Your task to perform on an android device: move an email to a new category in the gmail app Image 0: 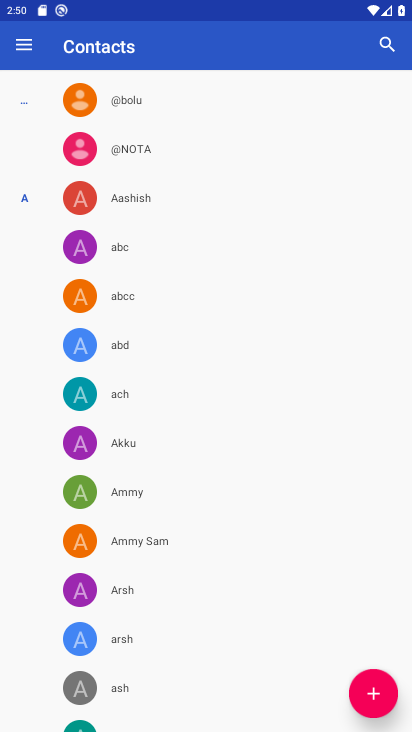
Step 0: press home button
Your task to perform on an android device: move an email to a new category in the gmail app Image 1: 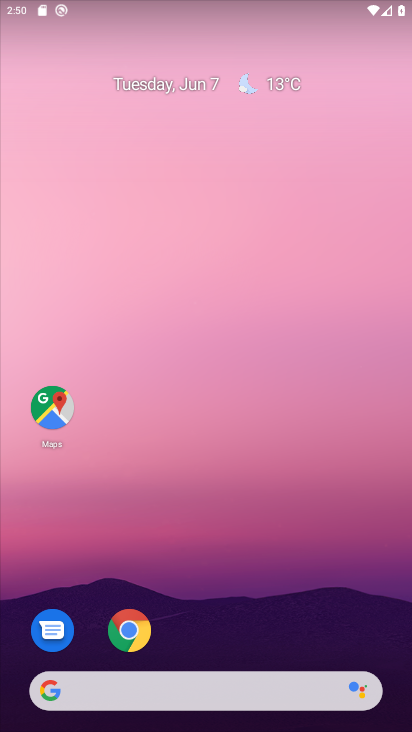
Step 1: drag from (225, 568) to (294, 150)
Your task to perform on an android device: move an email to a new category in the gmail app Image 2: 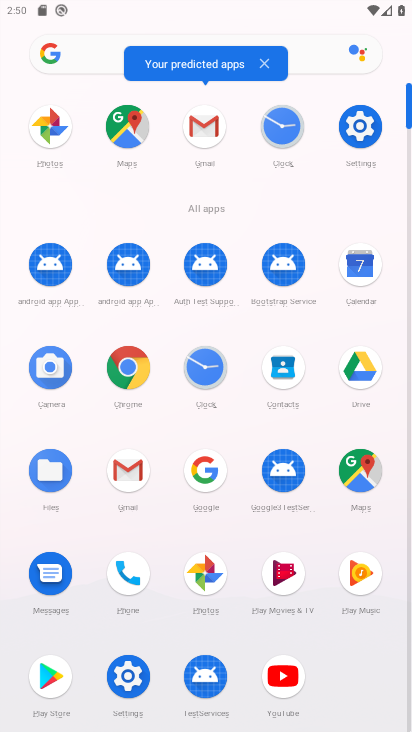
Step 2: click (114, 472)
Your task to perform on an android device: move an email to a new category in the gmail app Image 3: 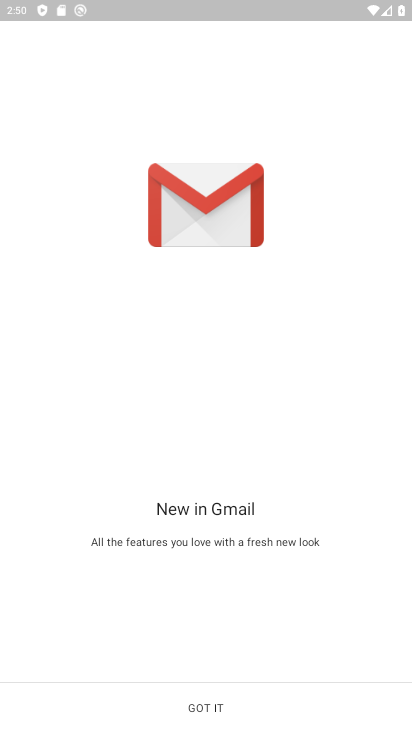
Step 3: click (208, 693)
Your task to perform on an android device: move an email to a new category in the gmail app Image 4: 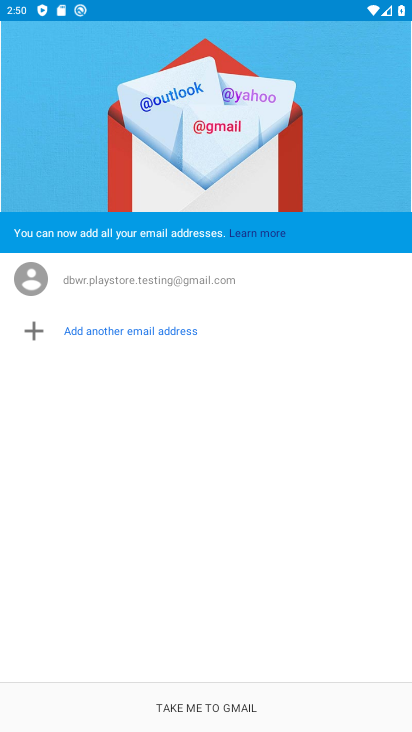
Step 4: click (218, 693)
Your task to perform on an android device: move an email to a new category in the gmail app Image 5: 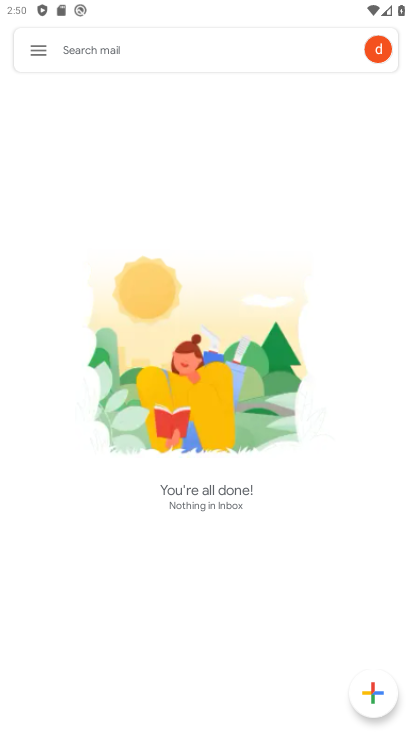
Step 5: click (43, 51)
Your task to perform on an android device: move an email to a new category in the gmail app Image 6: 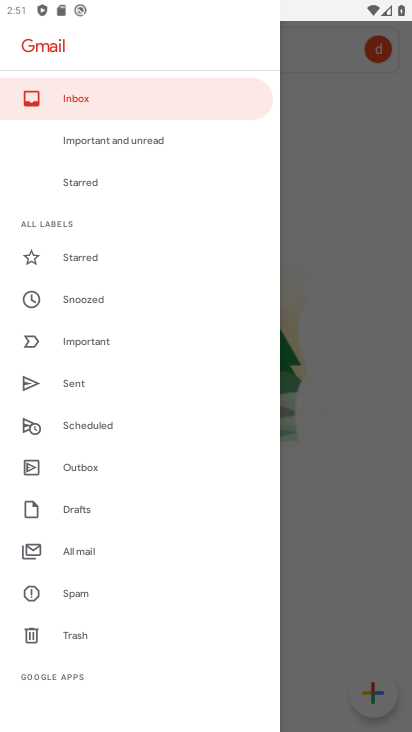
Step 6: click (113, 555)
Your task to perform on an android device: move an email to a new category in the gmail app Image 7: 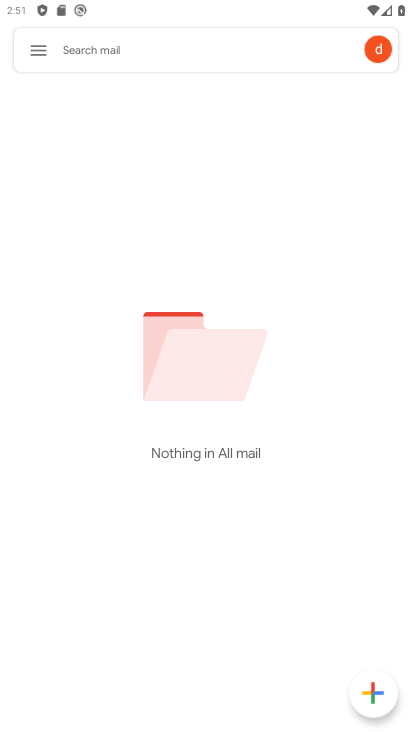
Step 7: task complete